Your task to perform on an android device: Clear all items from cart on newegg. Search for usb-c to usb-b on newegg, select the first entry, add it to the cart, then select checkout. Image 0: 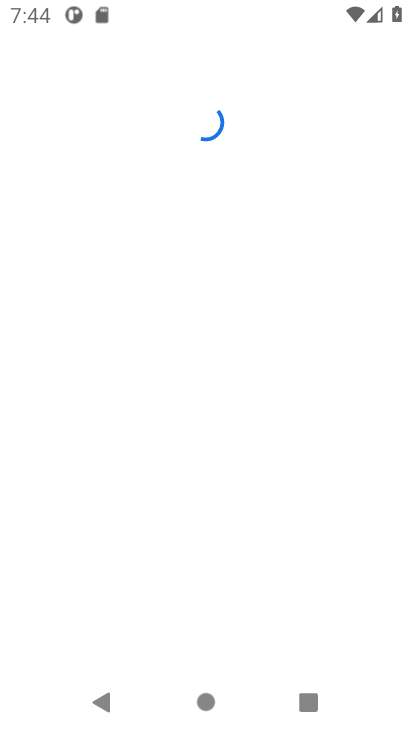
Step 0: click (242, 526)
Your task to perform on an android device: Clear all items from cart on newegg. Search for usb-c to usb-b on newegg, select the first entry, add it to the cart, then select checkout. Image 1: 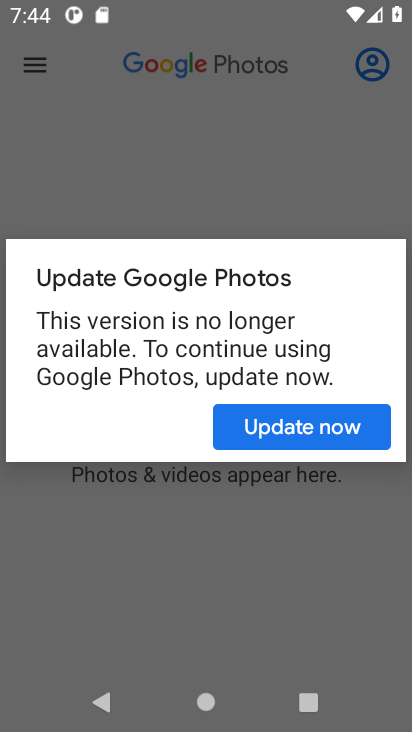
Step 1: press home button
Your task to perform on an android device: Clear all items from cart on newegg. Search for usb-c to usb-b on newegg, select the first entry, add it to the cart, then select checkout. Image 2: 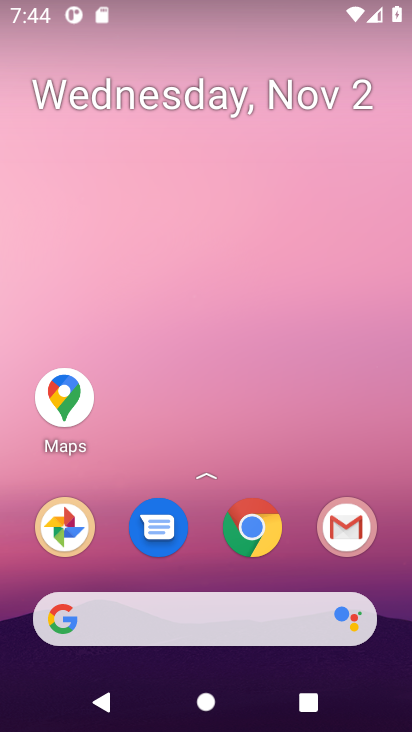
Step 2: click (245, 536)
Your task to perform on an android device: Clear all items from cart on newegg. Search for usb-c to usb-b on newegg, select the first entry, add it to the cart, then select checkout. Image 3: 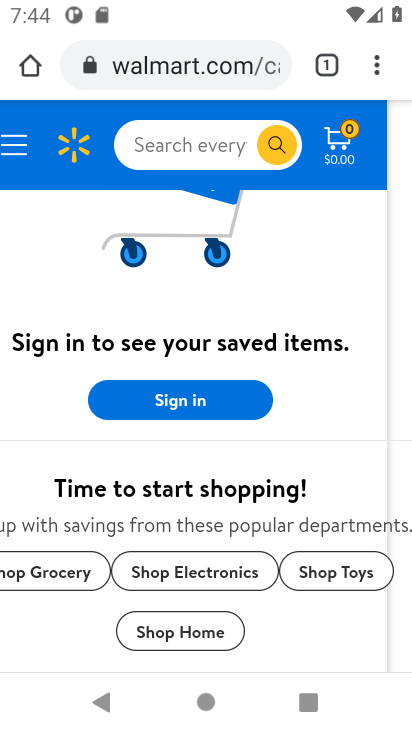
Step 3: click (245, 67)
Your task to perform on an android device: Clear all items from cart on newegg. Search for usb-c to usb-b on newegg, select the first entry, add it to the cart, then select checkout. Image 4: 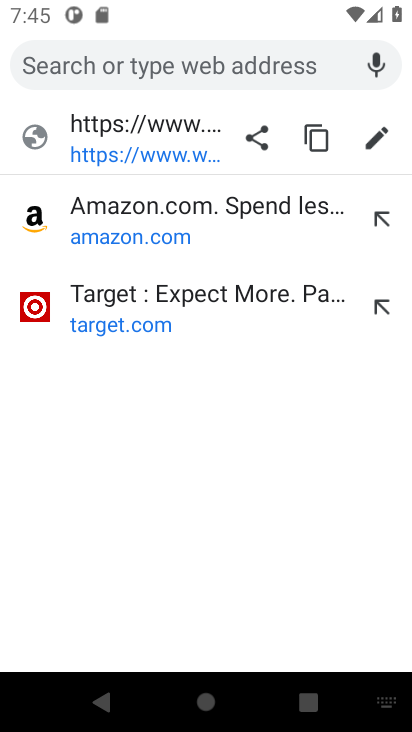
Step 4: type "newegg"
Your task to perform on an android device: Clear all items from cart on newegg. Search for usb-c to usb-b on newegg, select the first entry, add it to the cart, then select checkout. Image 5: 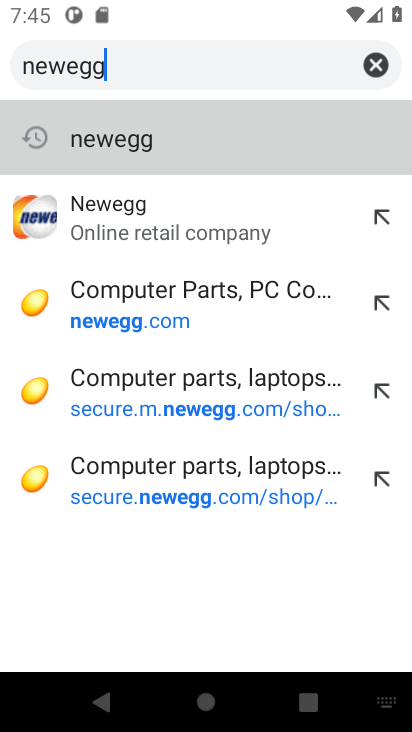
Step 5: click (194, 157)
Your task to perform on an android device: Clear all items from cart on newegg. Search for usb-c to usb-b on newegg, select the first entry, add it to the cart, then select checkout. Image 6: 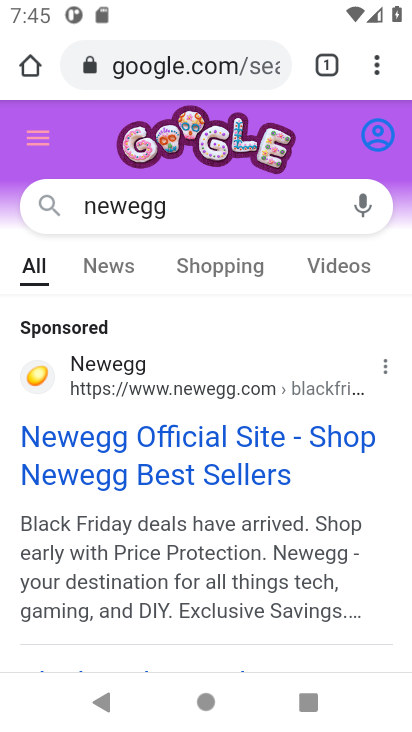
Step 6: click (243, 441)
Your task to perform on an android device: Clear all items from cart on newegg. Search for usb-c to usb-b on newegg, select the first entry, add it to the cart, then select checkout. Image 7: 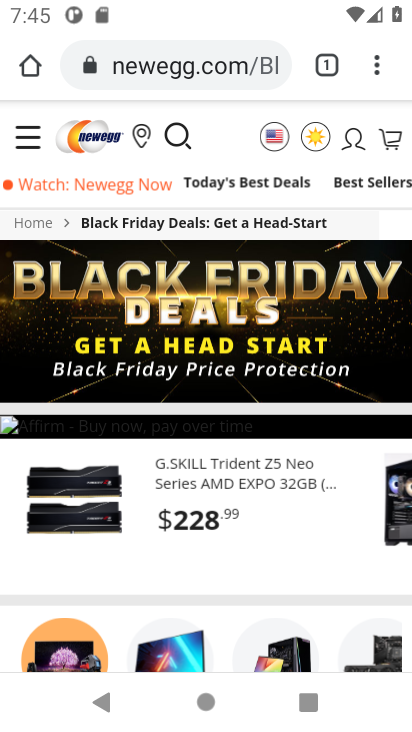
Step 7: click (392, 139)
Your task to perform on an android device: Clear all items from cart on newegg. Search for usb-c to usb-b on newegg, select the first entry, add it to the cart, then select checkout. Image 8: 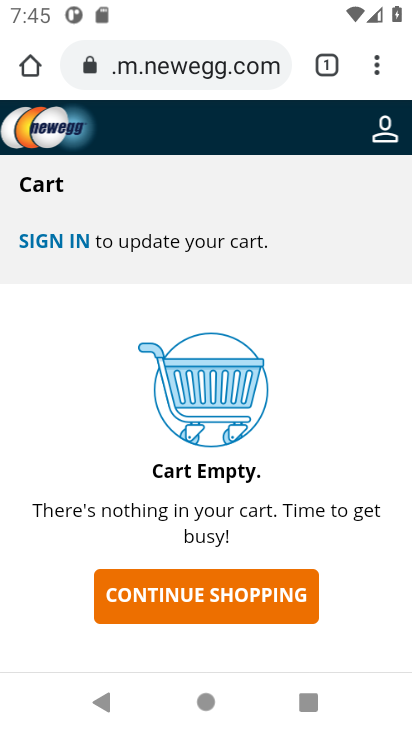
Step 8: click (174, 604)
Your task to perform on an android device: Clear all items from cart on newegg. Search for usb-c to usb-b on newegg, select the first entry, add it to the cart, then select checkout. Image 9: 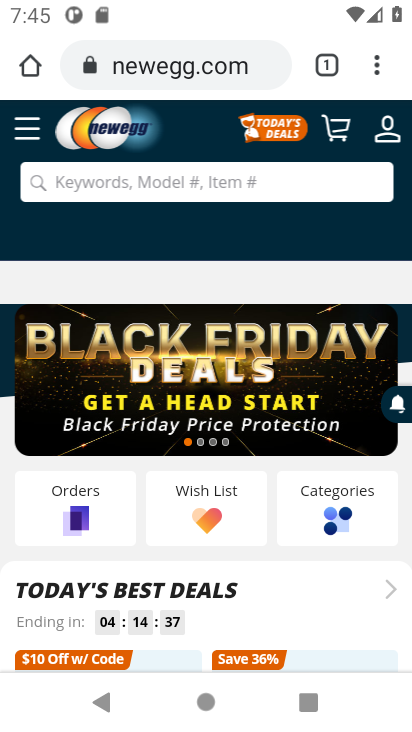
Step 9: click (121, 182)
Your task to perform on an android device: Clear all items from cart on newegg. Search for usb-c to usb-b on newegg, select the first entry, add it to the cart, then select checkout. Image 10: 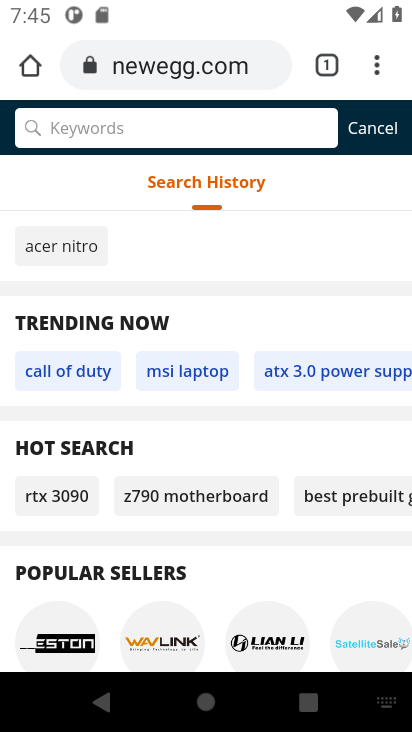
Step 10: type "usb-c to usb-b"
Your task to perform on an android device: Clear all items from cart on newegg. Search for usb-c to usb-b on newegg, select the first entry, add it to the cart, then select checkout. Image 11: 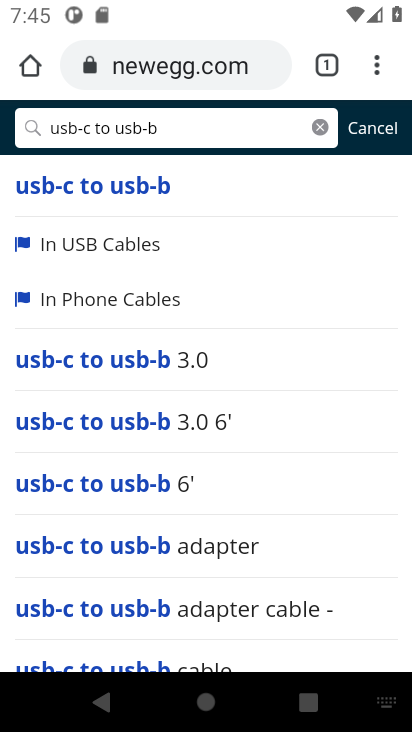
Step 11: click (127, 195)
Your task to perform on an android device: Clear all items from cart on newegg. Search for usb-c to usb-b on newegg, select the first entry, add it to the cart, then select checkout. Image 12: 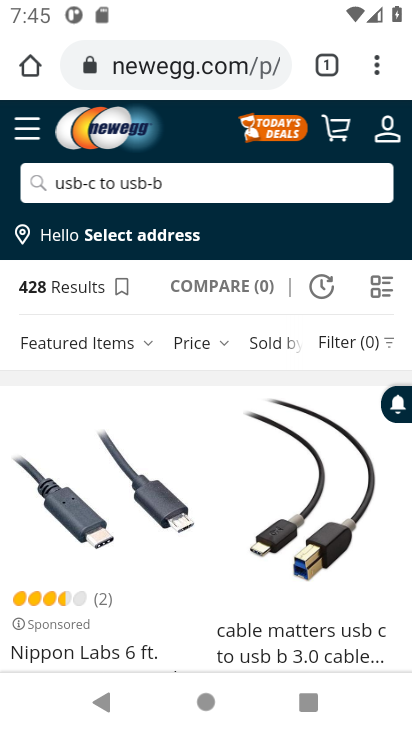
Step 12: click (100, 517)
Your task to perform on an android device: Clear all items from cart on newegg. Search for usb-c to usb-b on newegg, select the first entry, add it to the cart, then select checkout. Image 13: 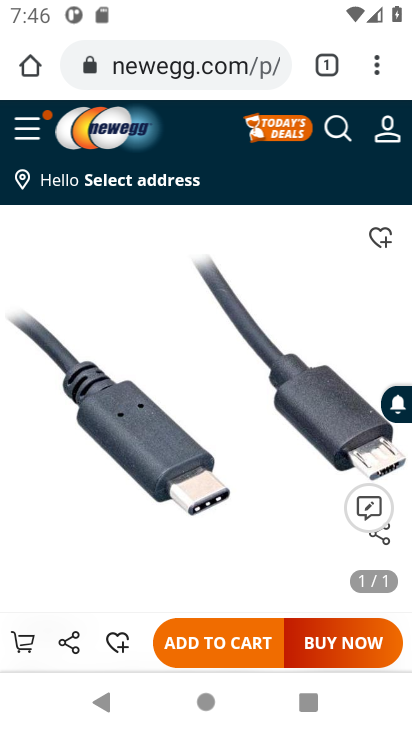
Step 13: drag from (125, 478) to (9, 87)
Your task to perform on an android device: Clear all items from cart on newegg. Search for usb-c to usb-b on newegg, select the first entry, add it to the cart, then select checkout. Image 14: 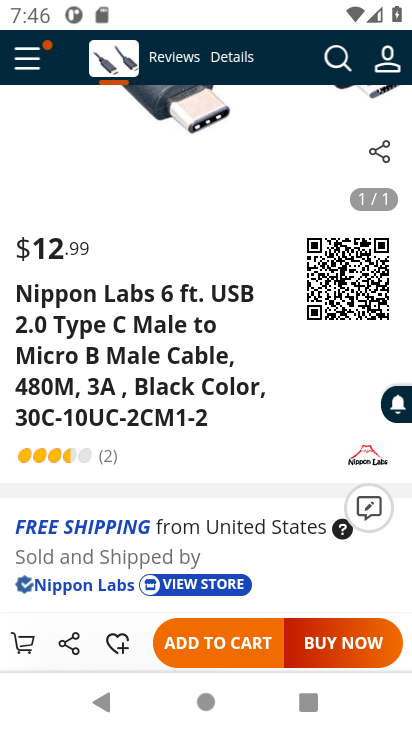
Step 14: click (207, 649)
Your task to perform on an android device: Clear all items from cart on newegg. Search for usb-c to usb-b on newegg, select the first entry, add it to the cart, then select checkout. Image 15: 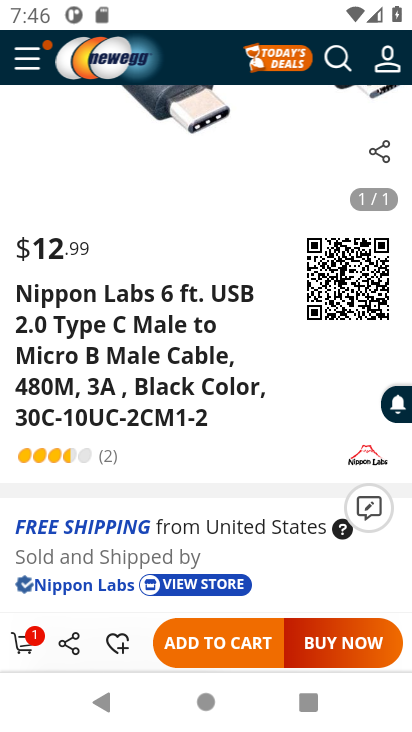
Step 15: click (15, 648)
Your task to perform on an android device: Clear all items from cart on newegg. Search for usb-c to usb-b on newegg, select the first entry, add it to the cart, then select checkout. Image 16: 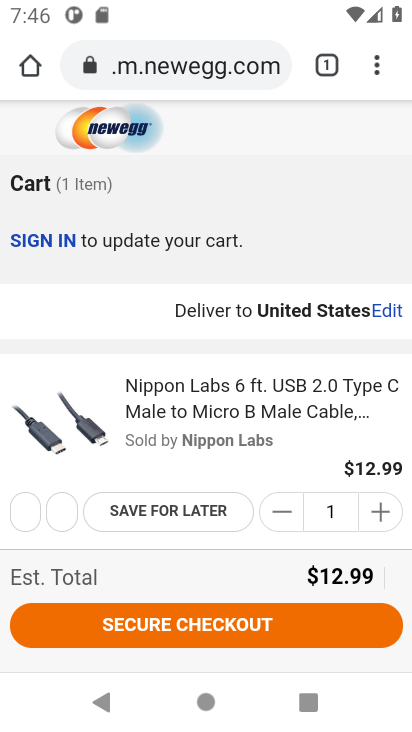
Step 16: click (99, 639)
Your task to perform on an android device: Clear all items from cart on newegg. Search for usb-c to usb-b on newegg, select the first entry, add it to the cart, then select checkout. Image 17: 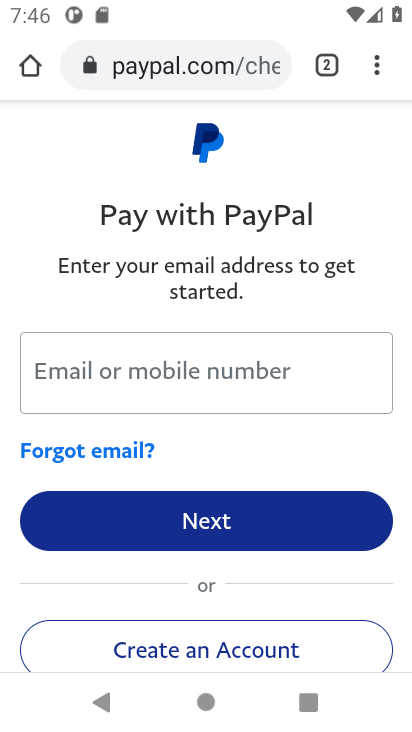
Step 17: task complete